Your task to perform on an android device: Play the last video I watched on Youtube Image 0: 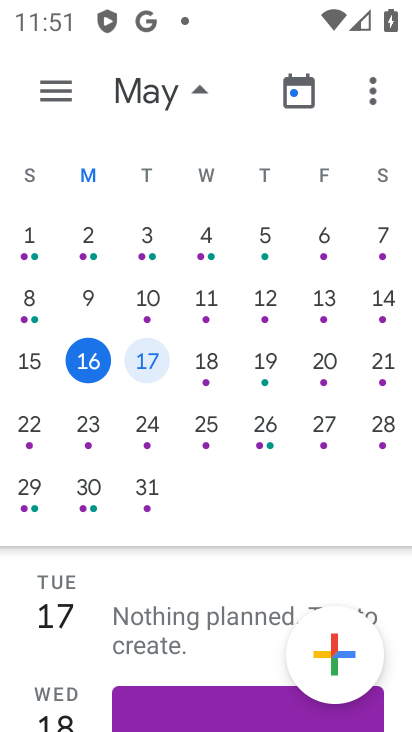
Step 0: press home button
Your task to perform on an android device: Play the last video I watched on Youtube Image 1: 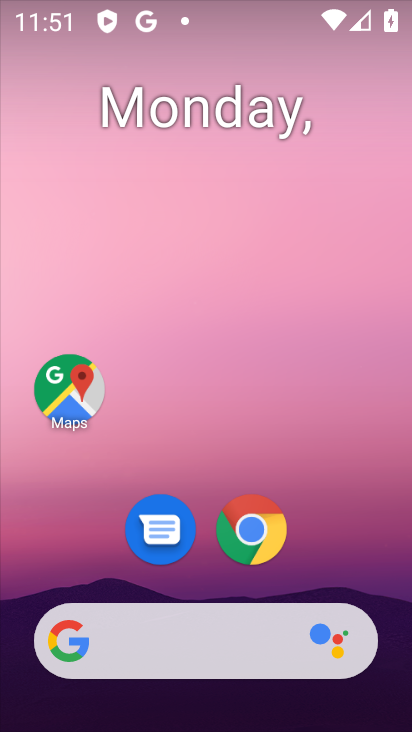
Step 1: drag from (215, 725) to (243, 157)
Your task to perform on an android device: Play the last video I watched on Youtube Image 2: 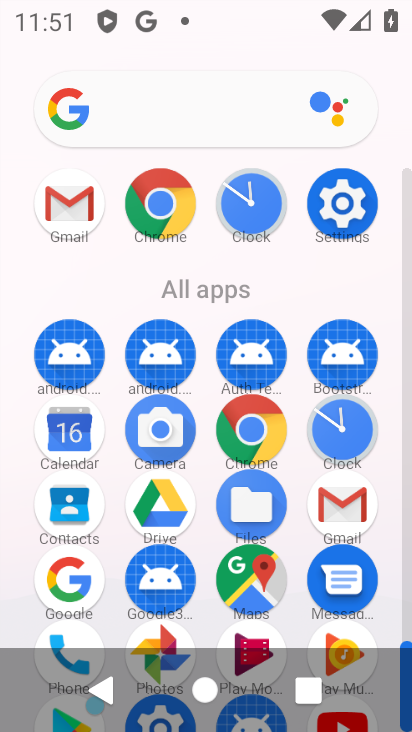
Step 2: drag from (292, 615) to (306, 269)
Your task to perform on an android device: Play the last video I watched on Youtube Image 3: 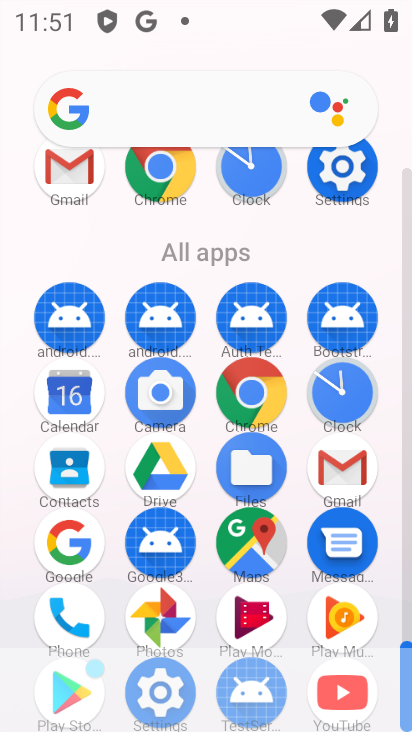
Step 3: click (359, 680)
Your task to perform on an android device: Play the last video I watched on Youtube Image 4: 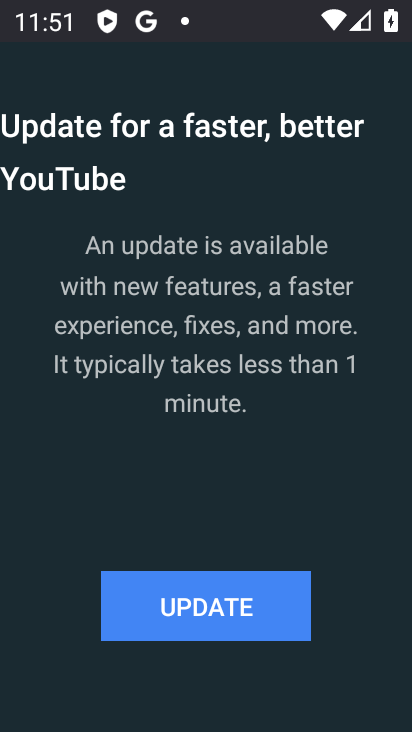
Step 4: press home button
Your task to perform on an android device: Play the last video I watched on Youtube Image 5: 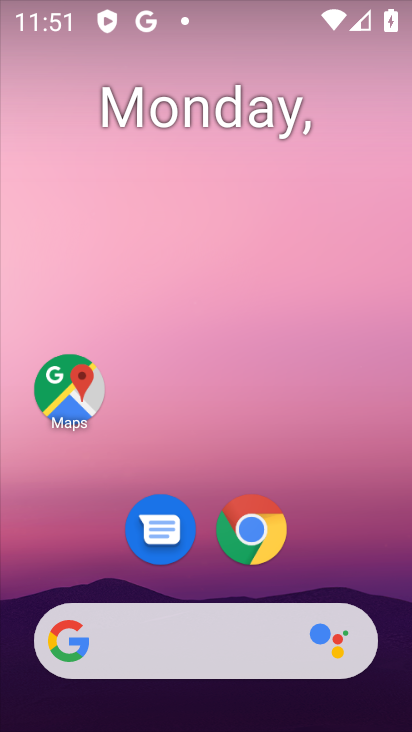
Step 5: drag from (214, 722) to (217, 162)
Your task to perform on an android device: Play the last video I watched on Youtube Image 6: 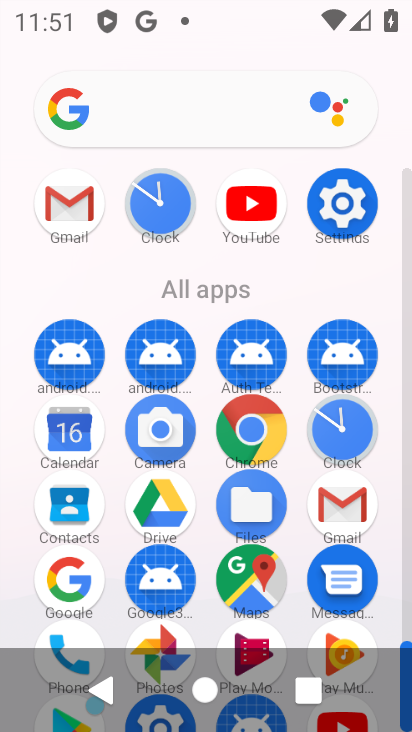
Step 6: drag from (303, 619) to (276, 173)
Your task to perform on an android device: Play the last video I watched on Youtube Image 7: 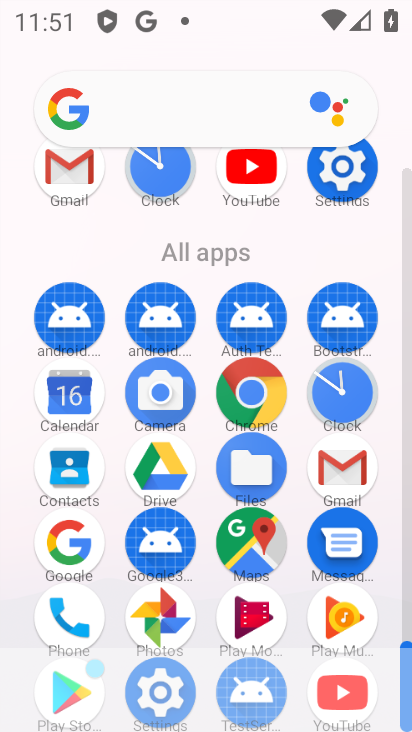
Step 7: click (342, 686)
Your task to perform on an android device: Play the last video I watched on Youtube Image 8: 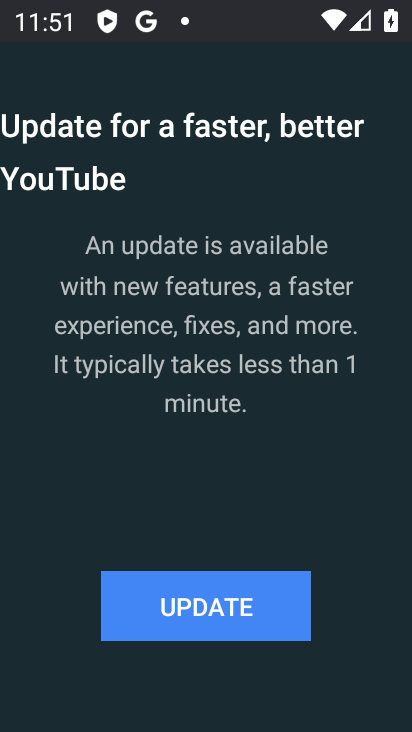
Step 8: task complete